Your task to perform on an android device: Play the new Demi Lovato video on YouTube Image 0: 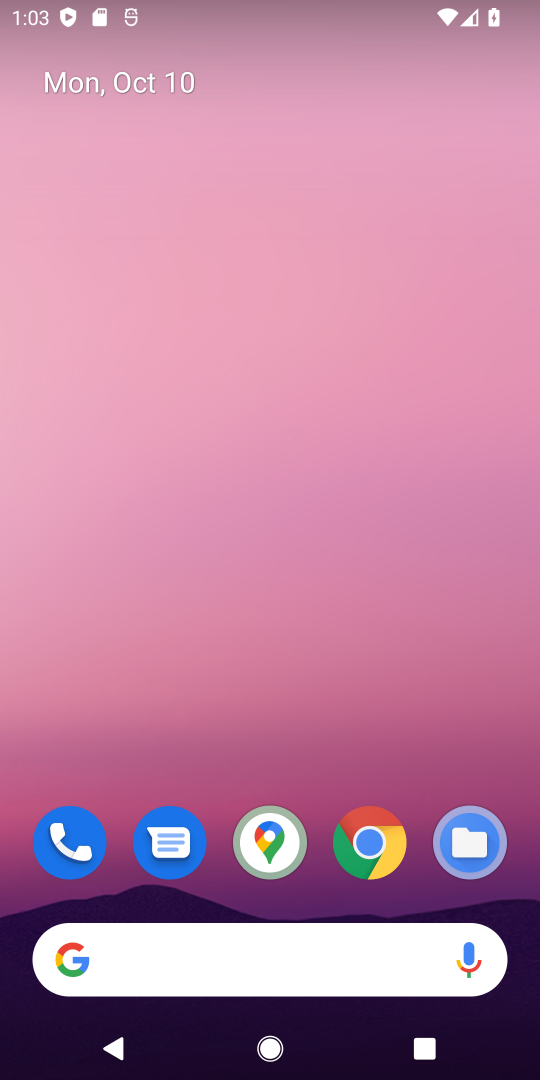
Step 0: click (381, 851)
Your task to perform on an android device: Play the new Demi Lovato video on YouTube Image 1: 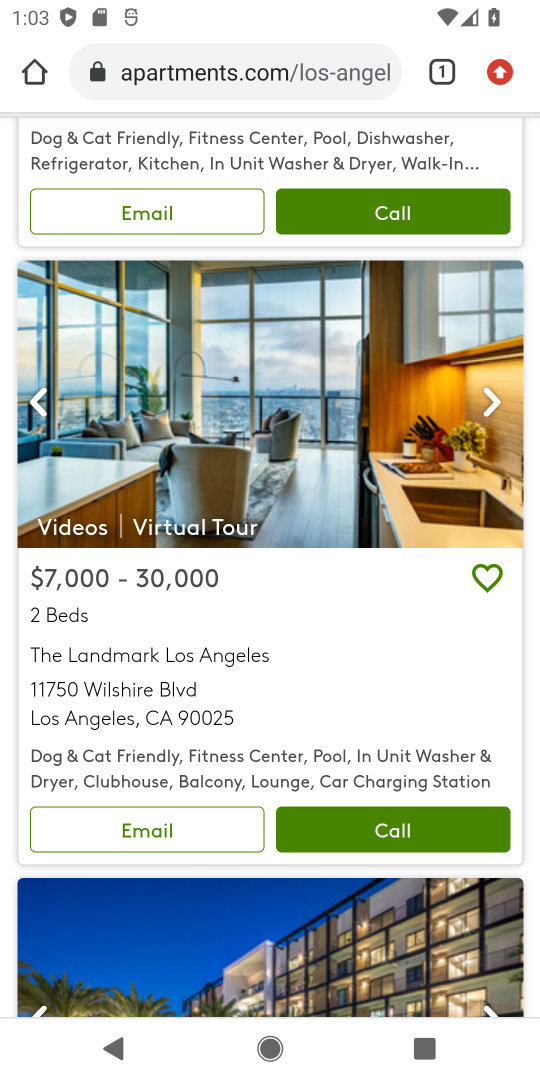
Step 1: click (232, 70)
Your task to perform on an android device: Play the new Demi Lovato video on YouTube Image 2: 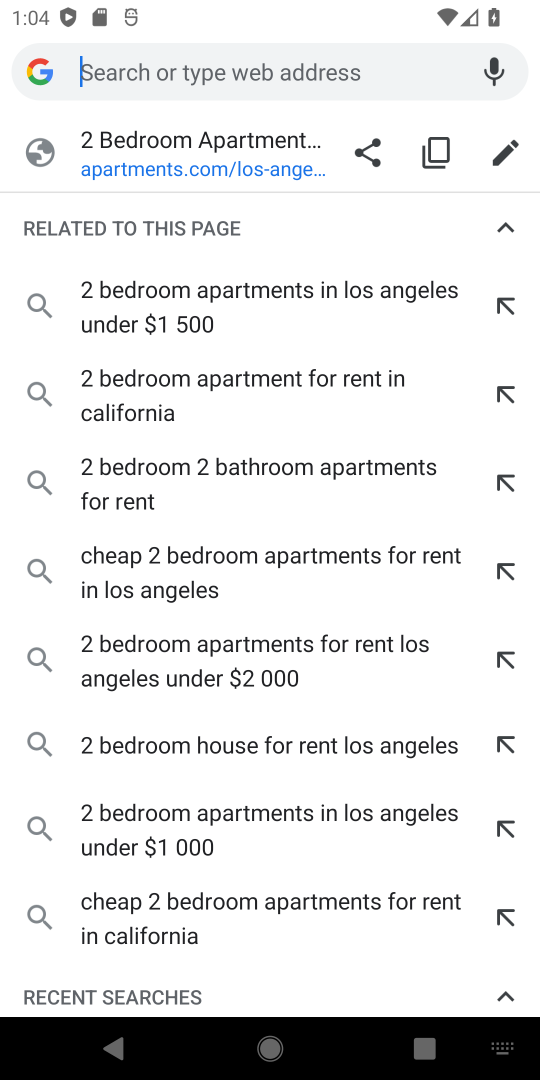
Step 2: press back button
Your task to perform on an android device: Play the new Demi Lovato video on YouTube Image 3: 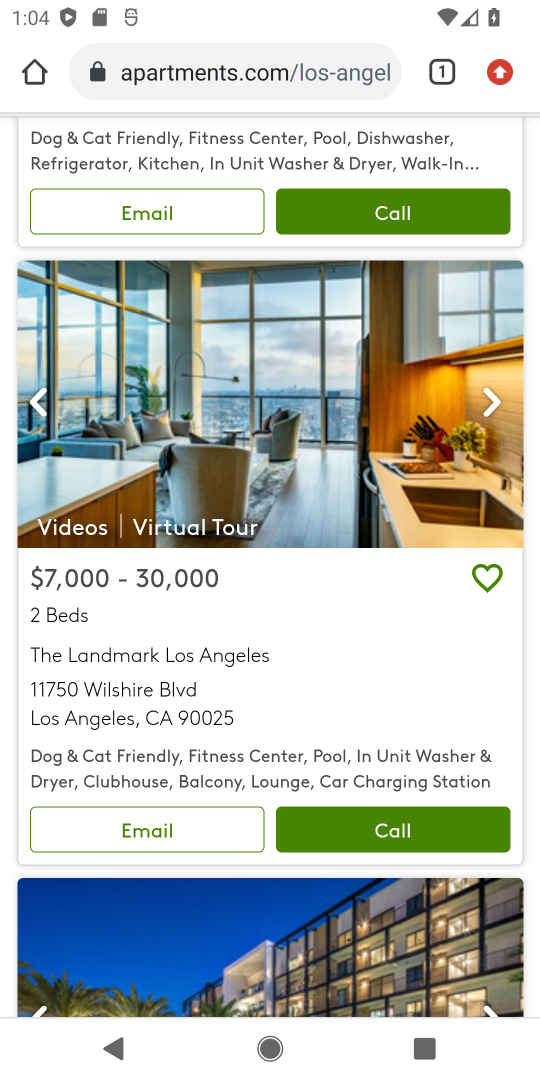
Step 3: click (33, 80)
Your task to perform on an android device: Play the new Demi Lovato video on YouTube Image 4: 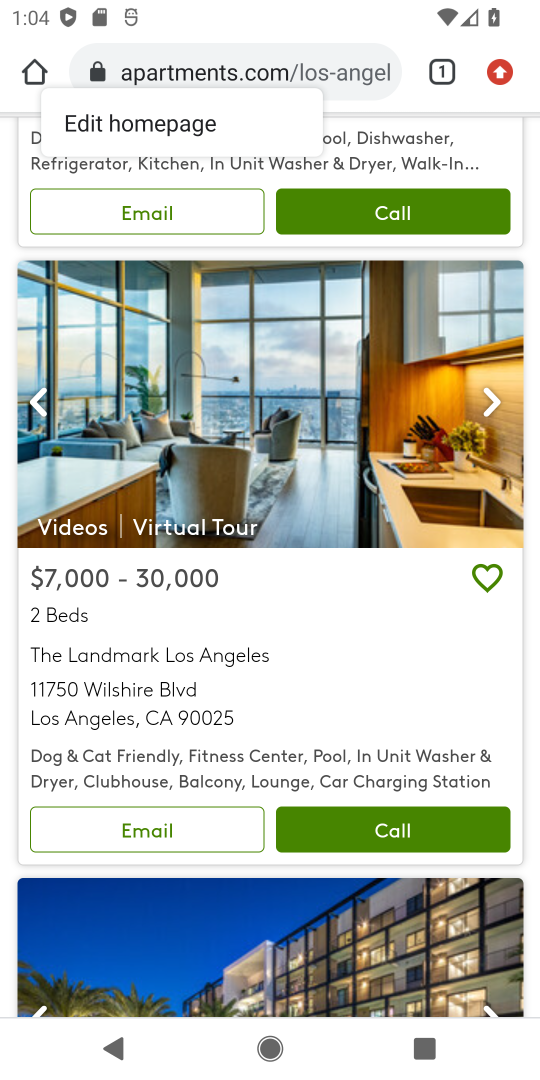
Step 4: drag from (367, 730) to (341, 559)
Your task to perform on an android device: Play the new Demi Lovato video on YouTube Image 5: 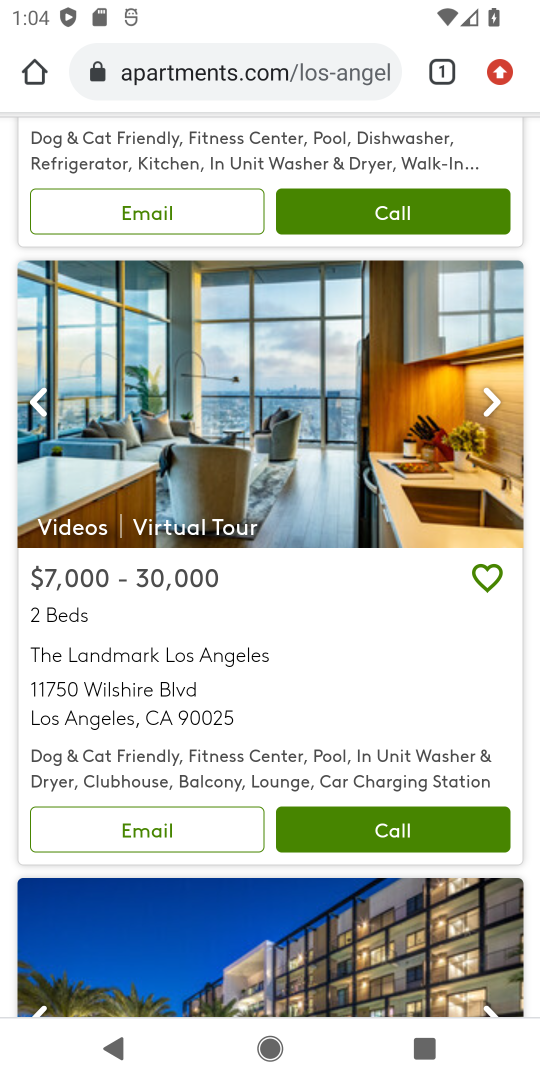
Step 5: click (28, 75)
Your task to perform on an android device: Play the new Demi Lovato video on YouTube Image 6: 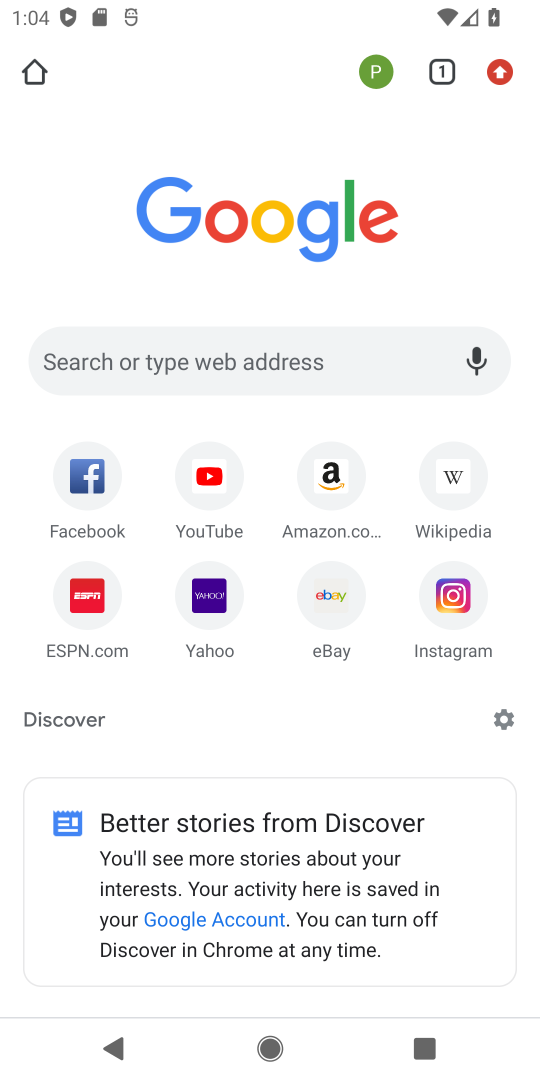
Step 6: click (197, 371)
Your task to perform on an android device: Play the new Demi Lovato video on YouTube Image 7: 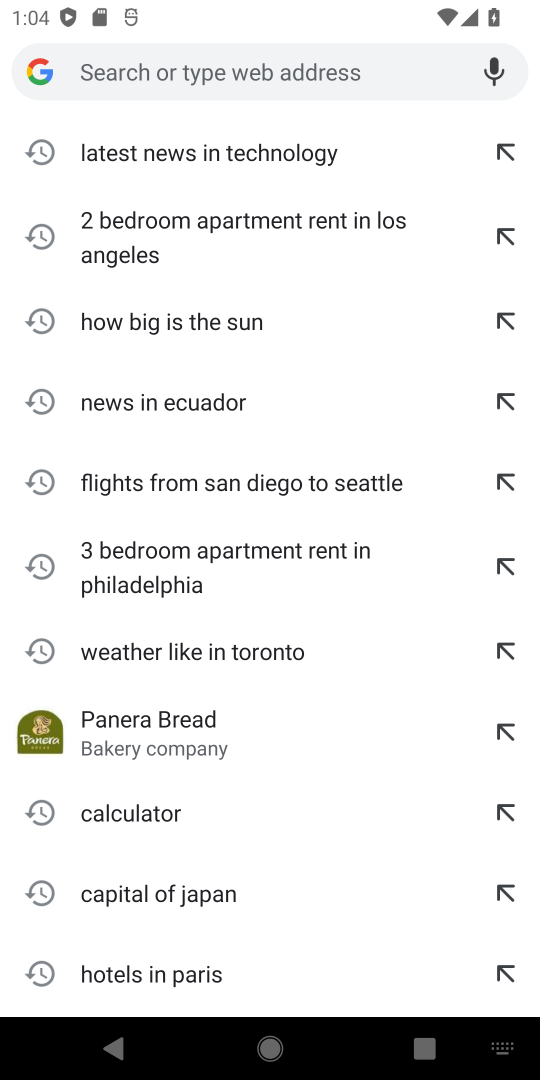
Step 7: press back button
Your task to perform on an android device: Play the new Demi Lovato video on YouTube Image 8: 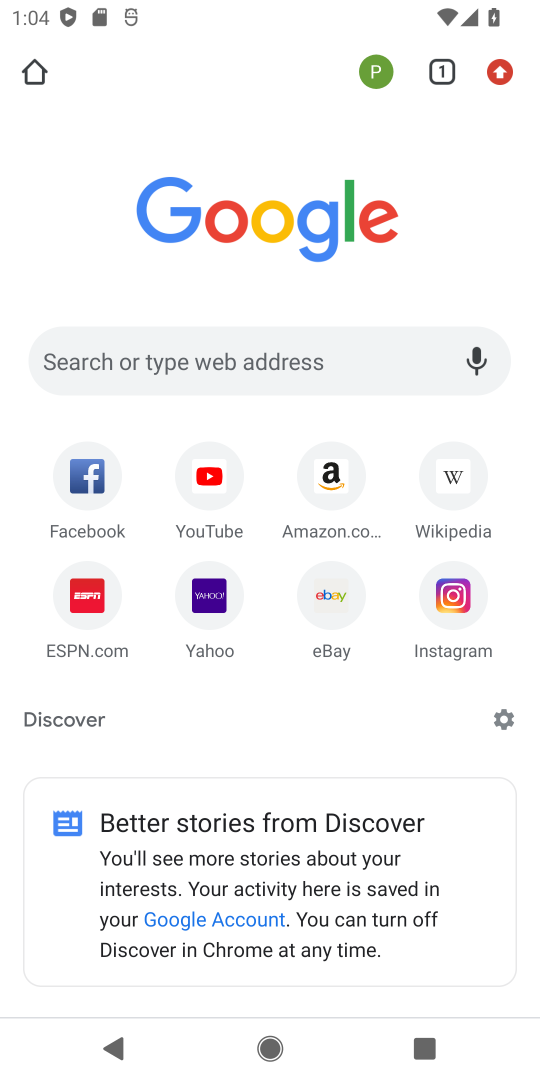
Step 8: click (209, 490)
Your task to perform on an android device: Play the new Demi Lovato video on YouTube Image 9: 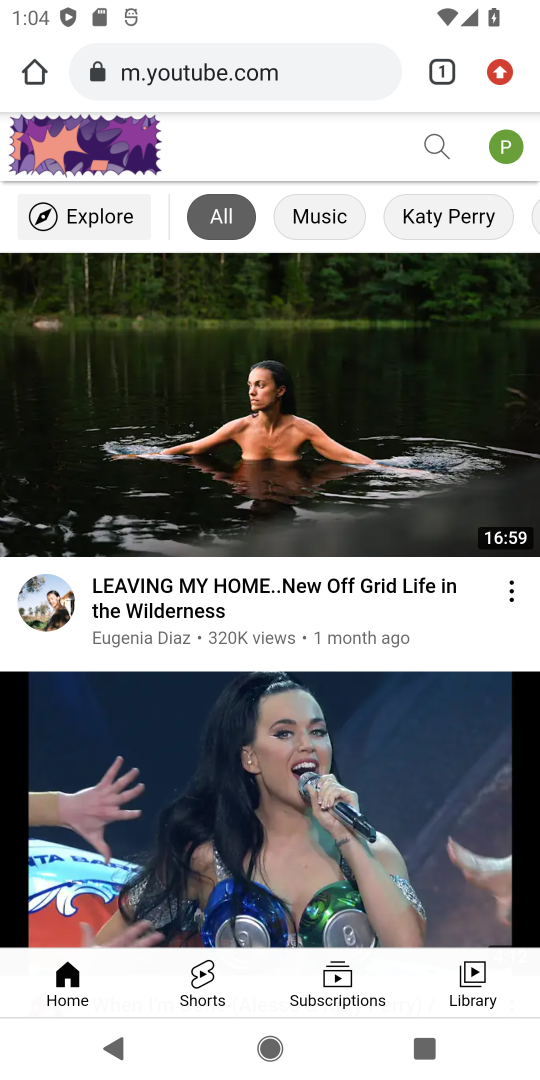
Step 9: click (431, 151)
Your task to perform on an android device: Play the new Demi Lovato video on YouTube Image 10: 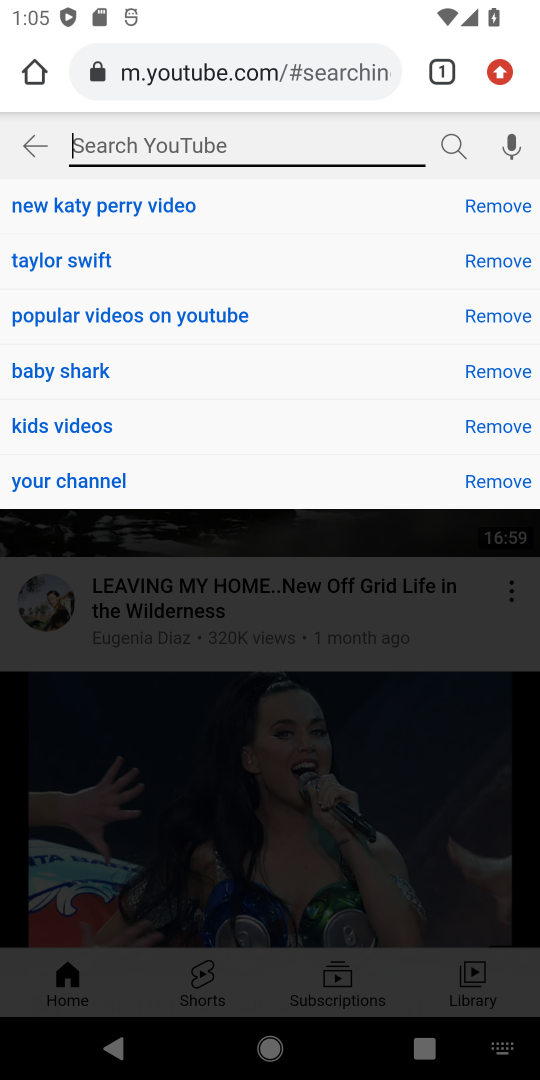
Step 10: type "demi lovato video"
Your task to perform on an android device: Play the new Demi Lovato video on YouTube Image 11: 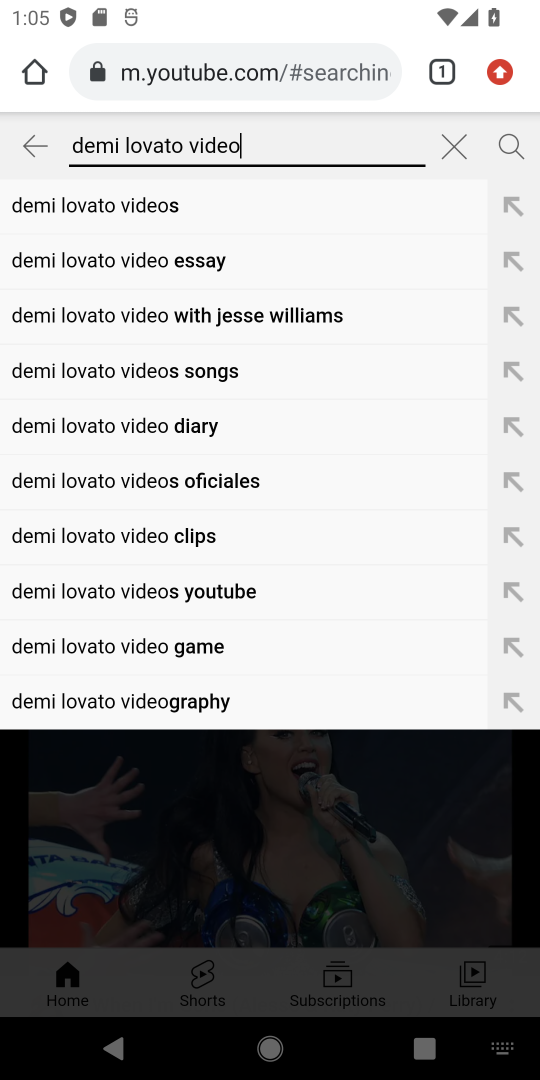
Step 11: press enter
Your task to perform on an android device: Play the new Demi Lovato video on YouTube Image 12: 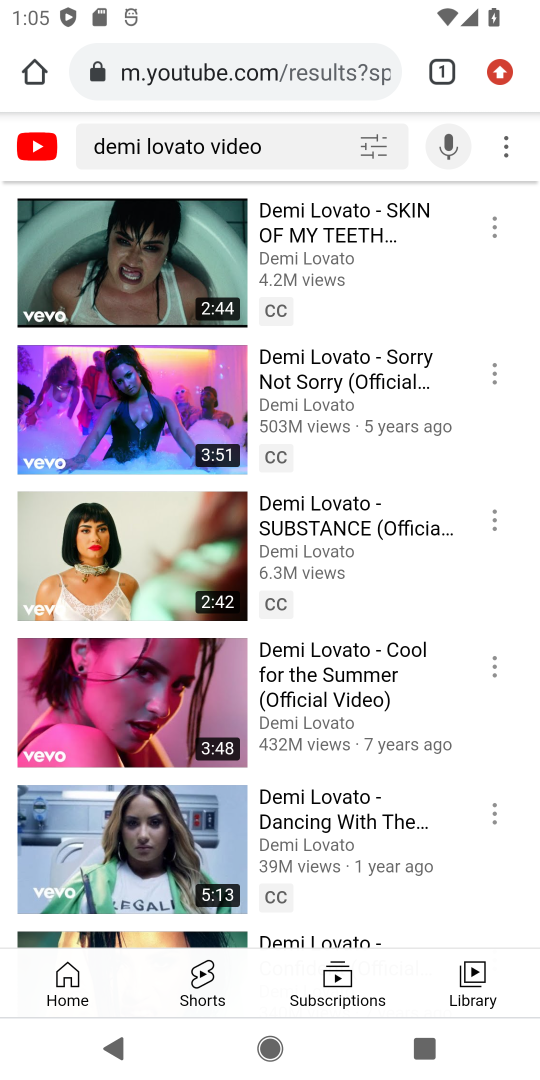
Step 12: click (321, 254)
Your task to perform on an android device: Play the new Demi Lovato video on YouTube Image 13: 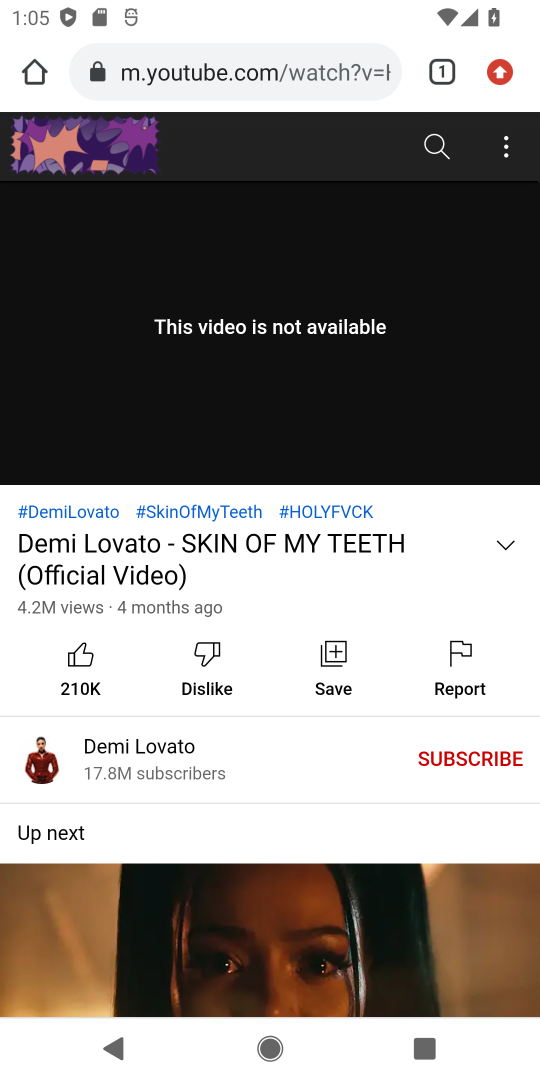
Step 13: click (129, 747)
Your task to perform on an android device: Play the new Demi Lovato video on YouTube Image 14: 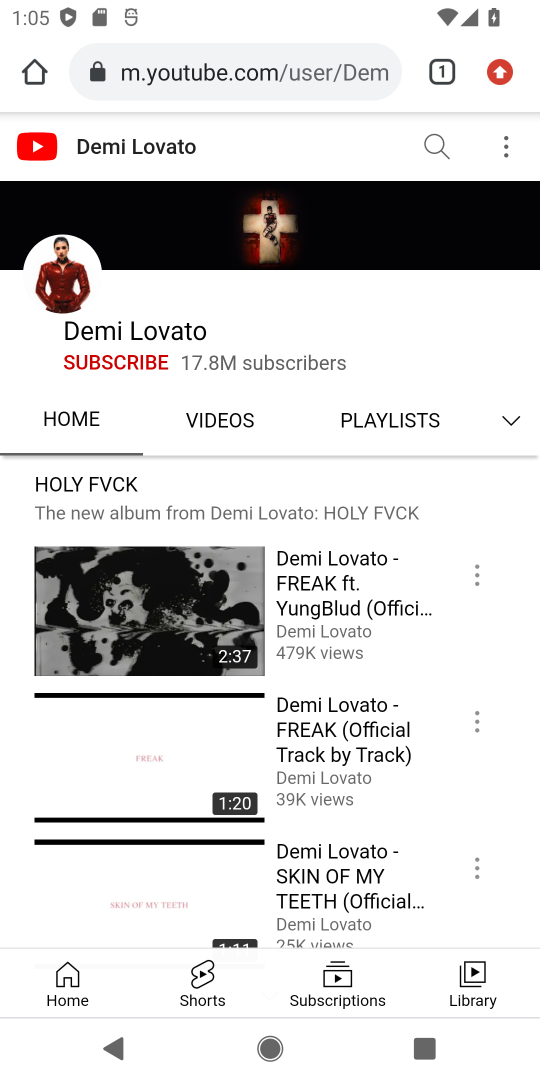
Step 14: click (219, 417)
Your task to perform on an android device: Play the new Demi Lovato video on YouTube Image 15: 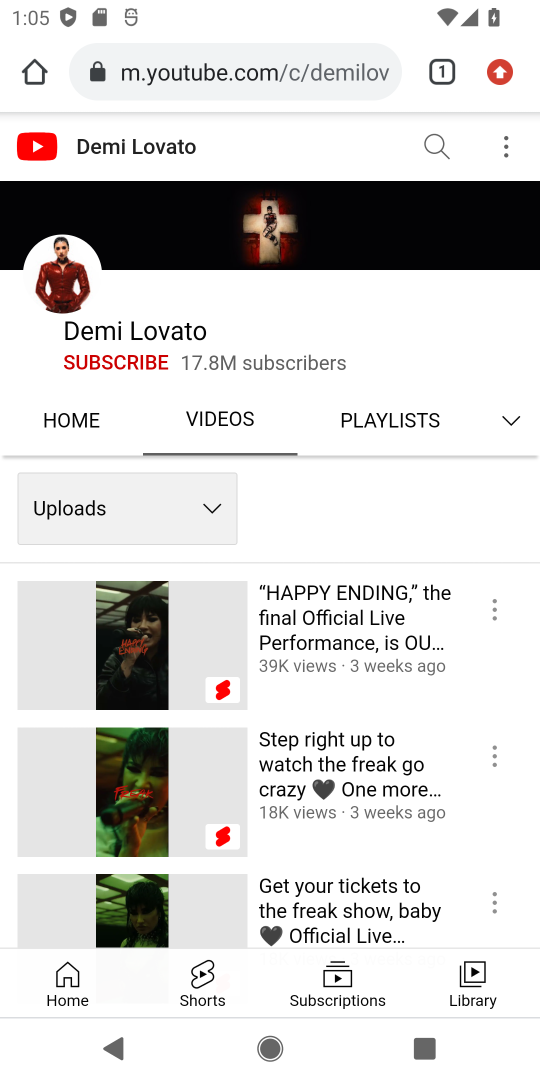
Step 15: drag from (357, 692) to (328, 419)
Your task to perform on an android device: Play the new Demi Lovato video on YouTube Image 16: 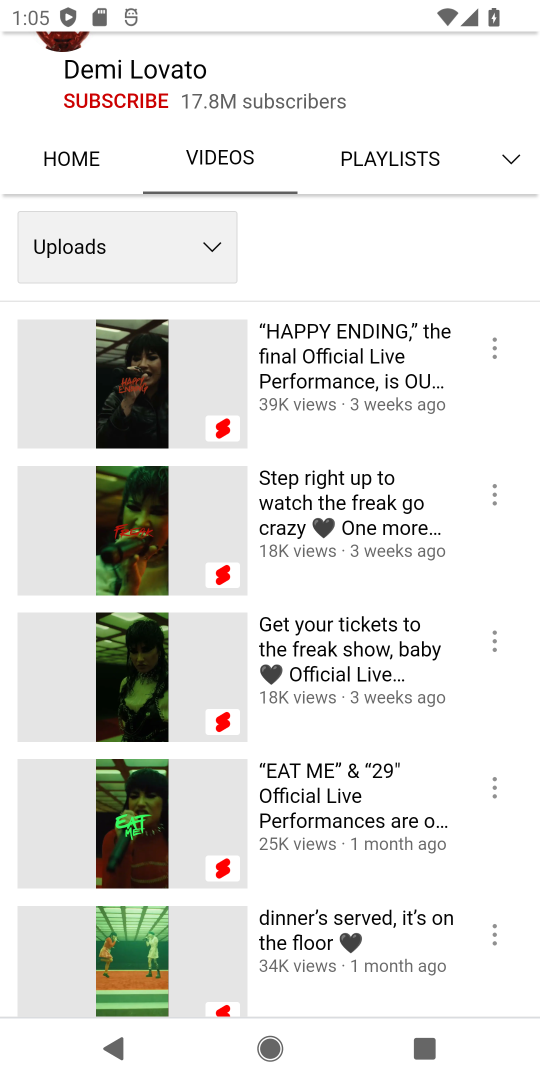
Step 16: drag from (348, 785) to (311, 391)
Your task to perform on an android device: Play the new Demi Lovato video on YouTube Image 17: 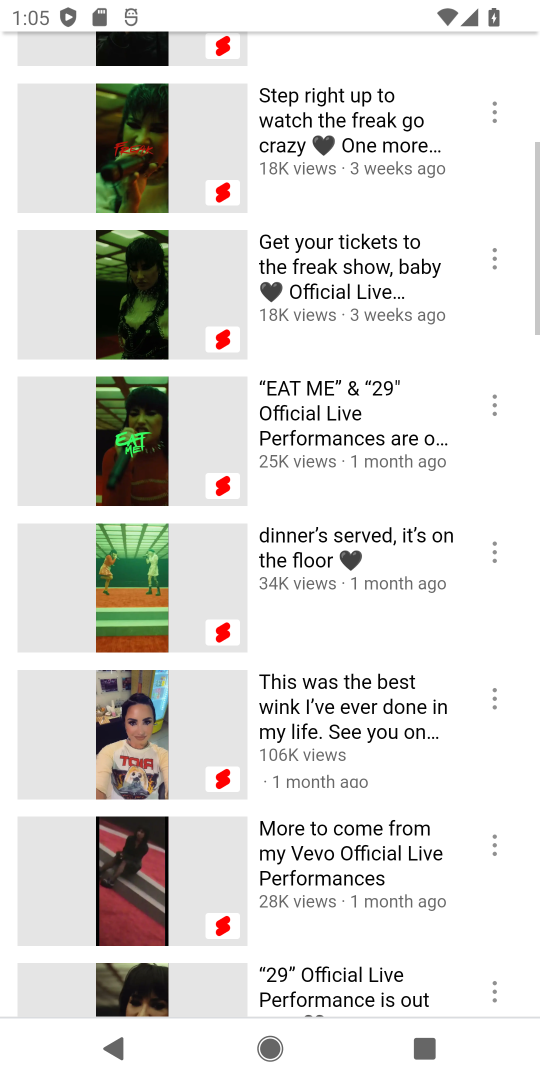
Step 17: drag from (276, 920) to (202, 205)
Your task to perform on an android device: Play the new Demi Lovato video on YouTube Image 18: 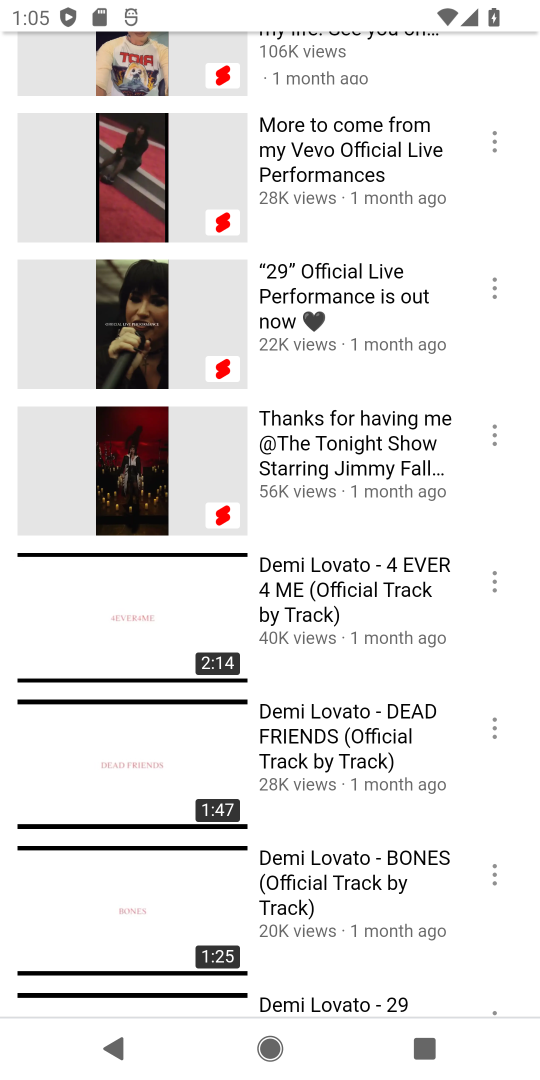
Step 18: click (244, 640)
Your task to perform on an android device: Play the new Demi Lovato video on YouTube Image 19: 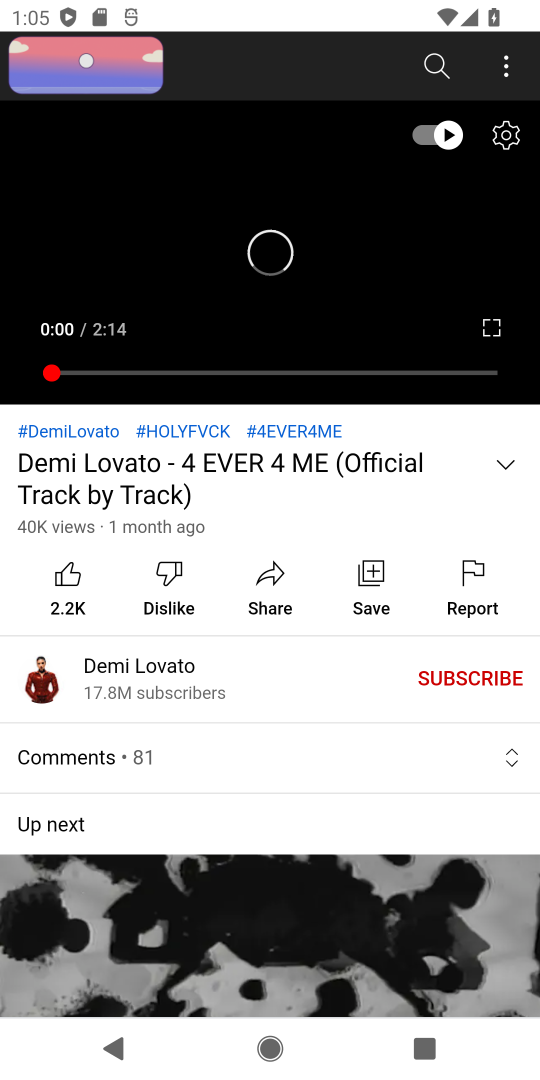
Step 19: task complete